Your task to perform on an android device: set default search engine in the chrome app Image 0: 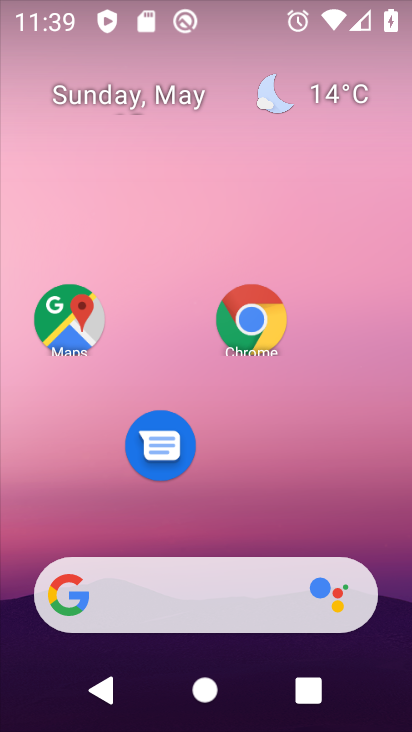
Step 0: press home button
Your task to perform on an android device: set default search engine in the chrome app Image 1: 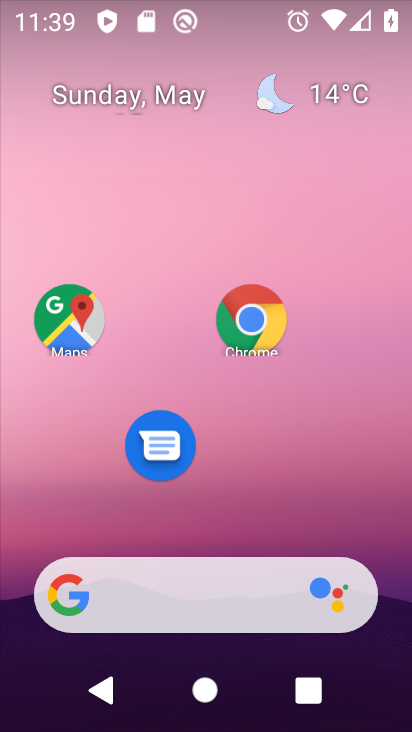
Step 1: drag from (208, 567) to (276, 113)
Your task to perform on an android device: set default search engine in the chrome app Image 2: 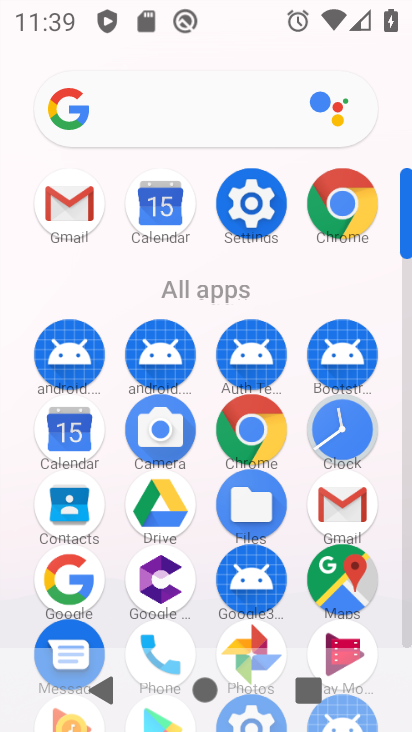
Step 2: click (329, 218)
Your task to perform on an android device: set default search engine in the chrome app Image 3: 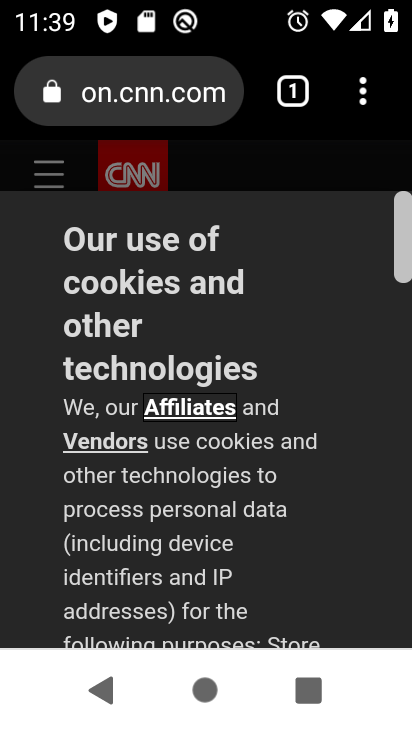
Step 3: drag from (366, 85) to (160, 481)
Your task to perform on an android device: set default search engine in the chrome app Image 4: 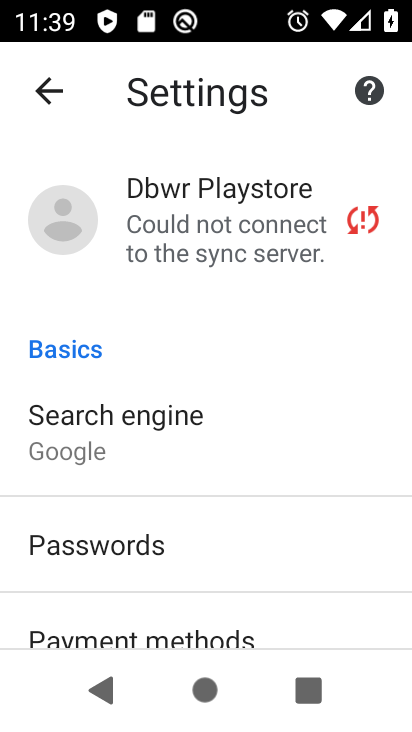
Step 4: click (133, 444)
Your task to perform on an android device: set default search engine in the chrome app Image 5: 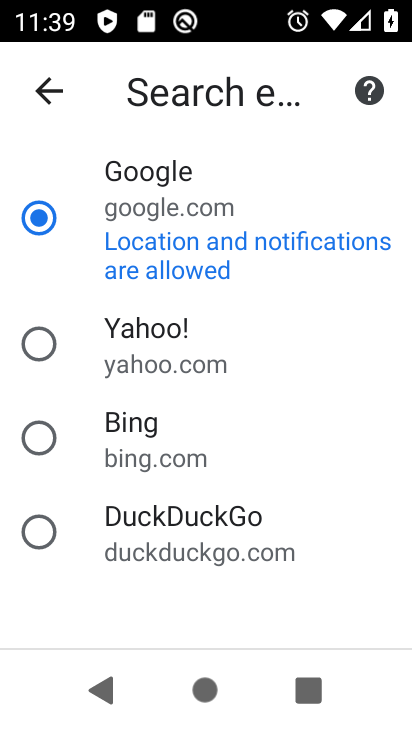
Step 5: click (53, 339)
Your task to perform on an android device: set default search engine in the chrome app Image 6: 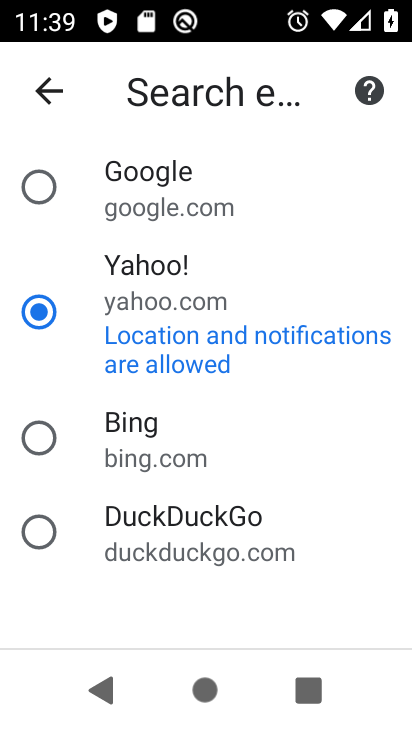
Step 6: task complete